Your task to perform on an android device: manage bookmarks in the chrome app Image 0: 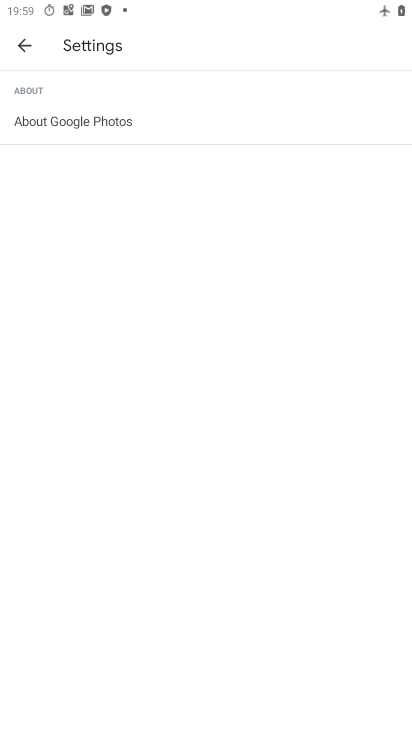
Step 0: press home button
Your task to perform on an android device: manage bookmarks in the chrome app Image 1: 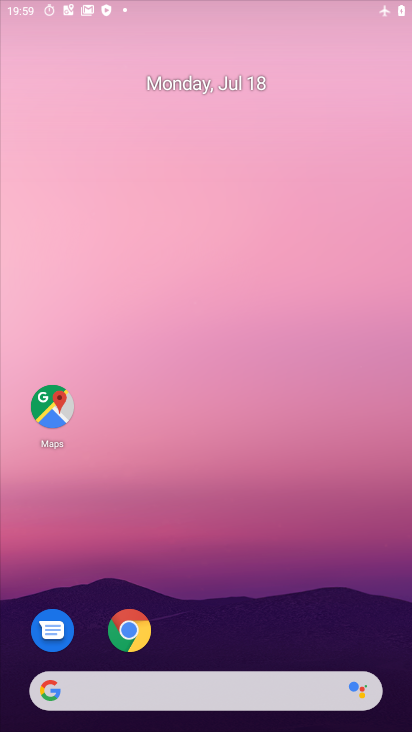
Step 1: drag from (282, 561) to (249, 0)
Your task to perform on an android device: manage bookmarks in the chrome app Image 2: 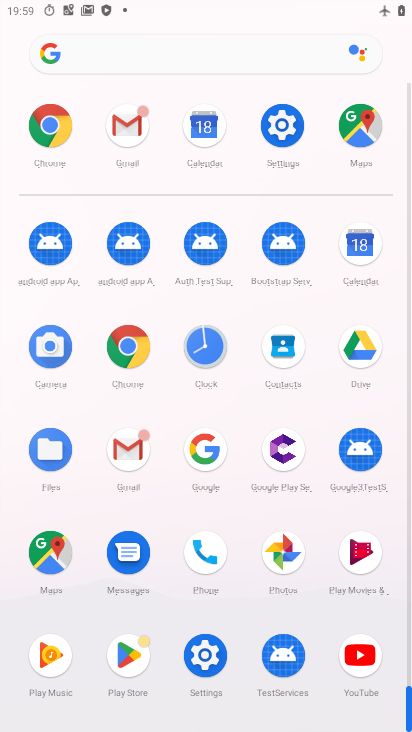
Step 2: click (57, 137)
Your task to perform on an android device: manage bookmarks in the chrome app Image 3: 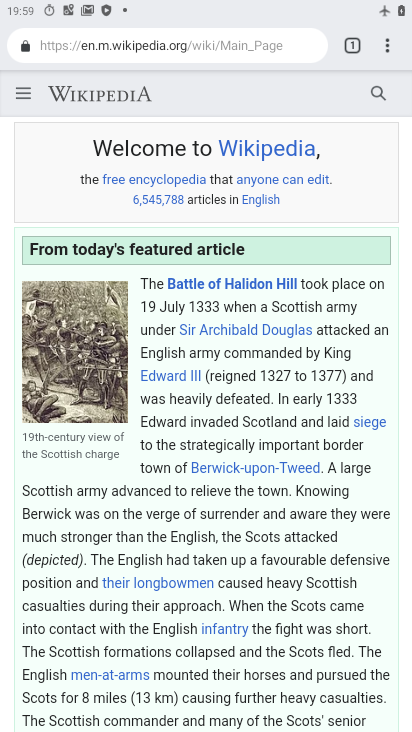
Step 3: drag from (385, 45) to (249, 180)
Your task to perform on an android device: manage bookmarks in the chrome app Image 4: 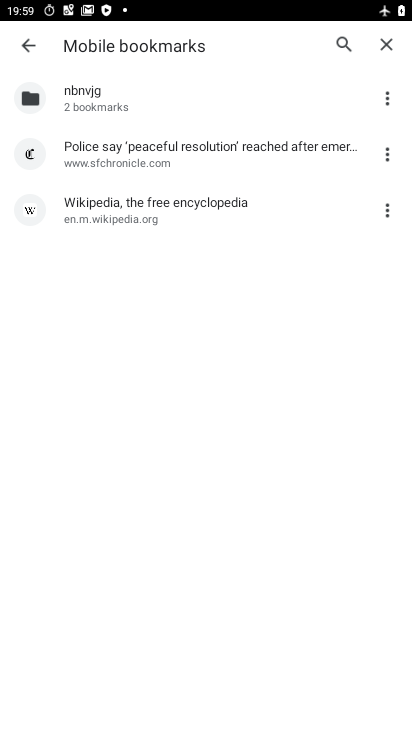
Step 4: click (392, 156)
Your task to perform on an android device: manage bookmarks in the chrome app Image 5: 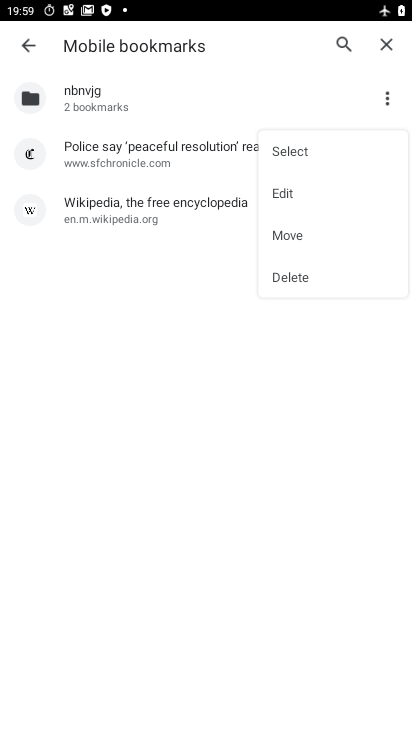
Step 5: click (280, 281)
Your task to perform on an android device: manage bookmarks in the chrome app Image 6: 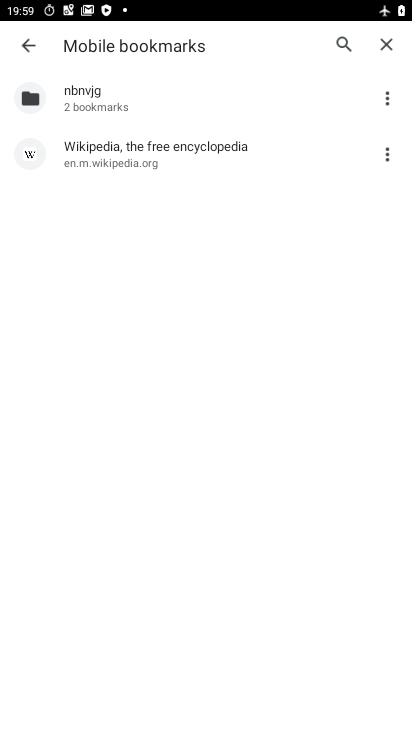
Step 6: task complete